Your task to perform on an android device: Open eBay Image 0: 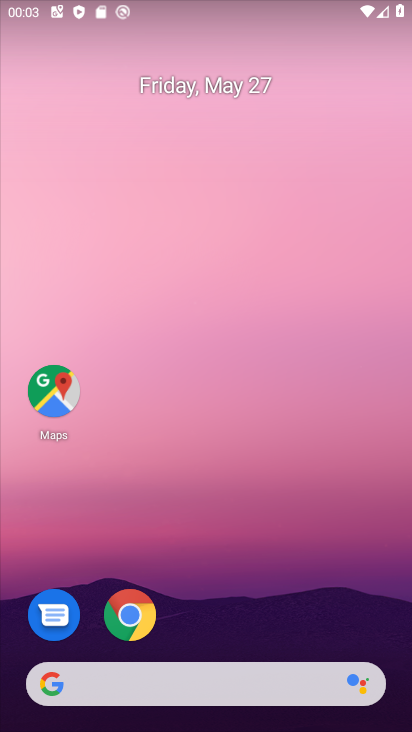
Step 0: click (101, 633)
Your task to perform on an android device: Open eBay Image 1: 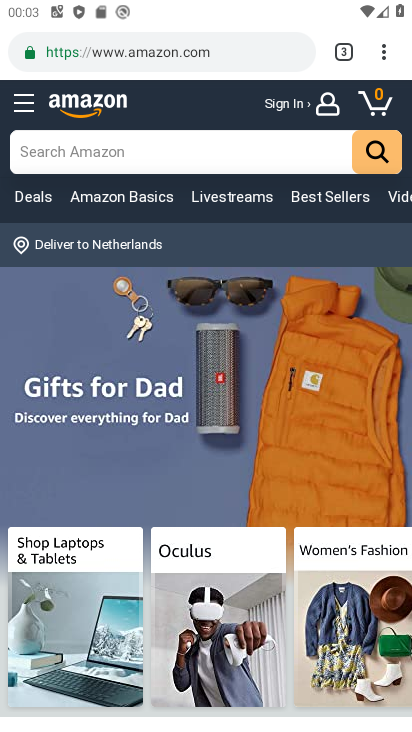
Step 1: click (154, 48)
Your task to perform on an android device: Open eBay Image 2: 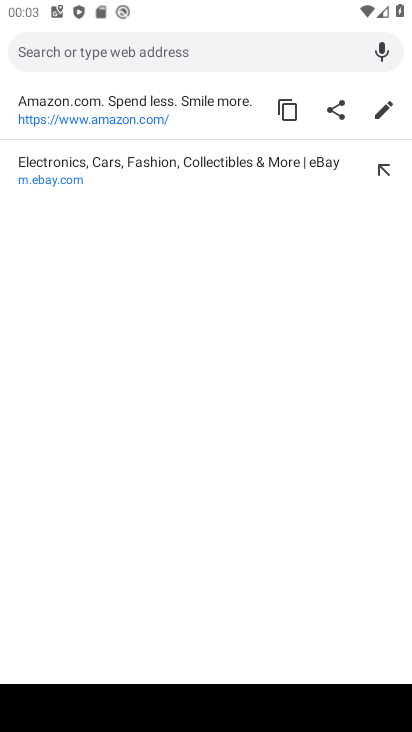
Step 2: type "eBay"
Your task to perform on an android device: Open eBay Image 3: 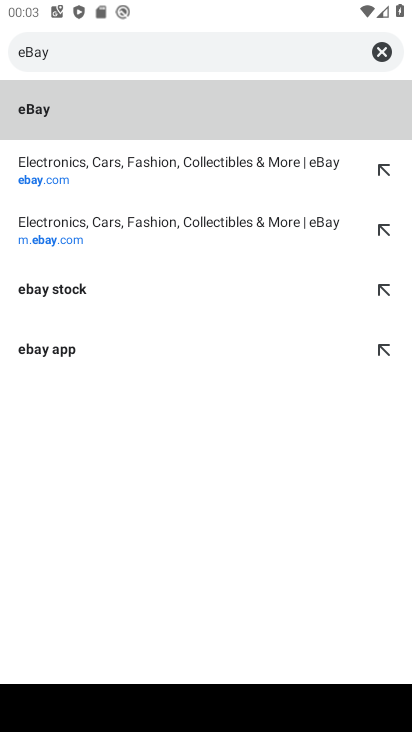
Step 3: click (32, 164)
Your task to perform on an android device: Open eBay Image 4: 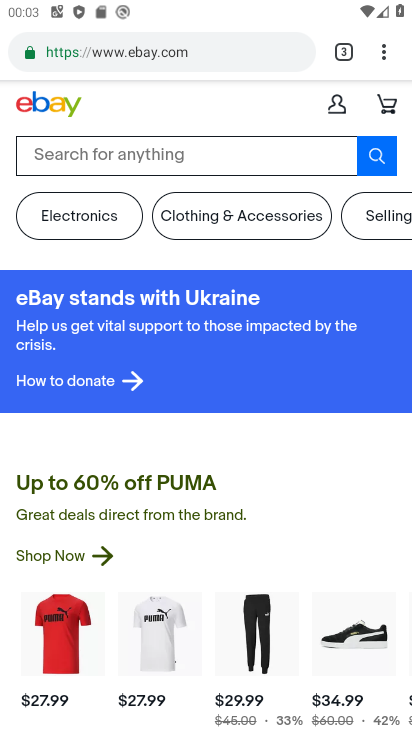
Step 4: task complete